Your task to perform on an android device: Search for Mexican restaurants on Maps Image 0: 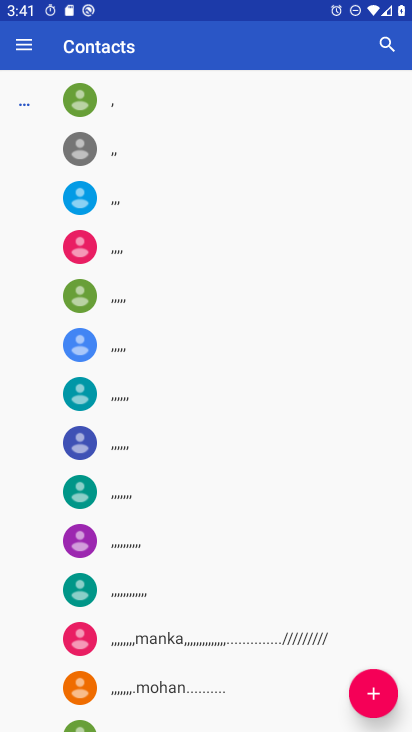
Step 0: press home button
Your task to perform on an android device: Search for Mexican restaurants on Maps Image 1: 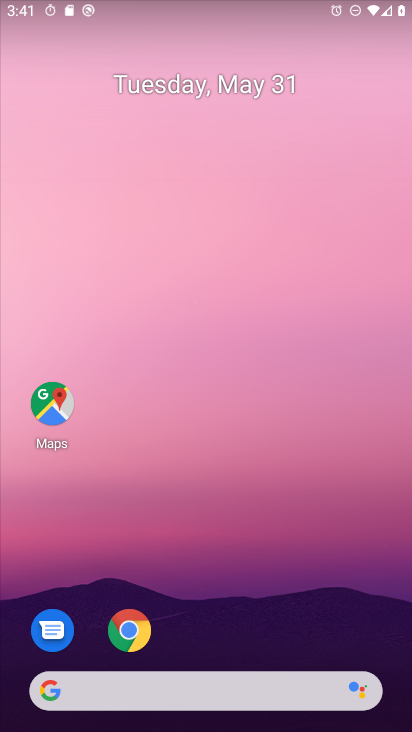
Step 1: drag from (192, 696) to (223, 88)
Your task to perform on an android device: Search for Mexican restaurants on Maps Image 2: 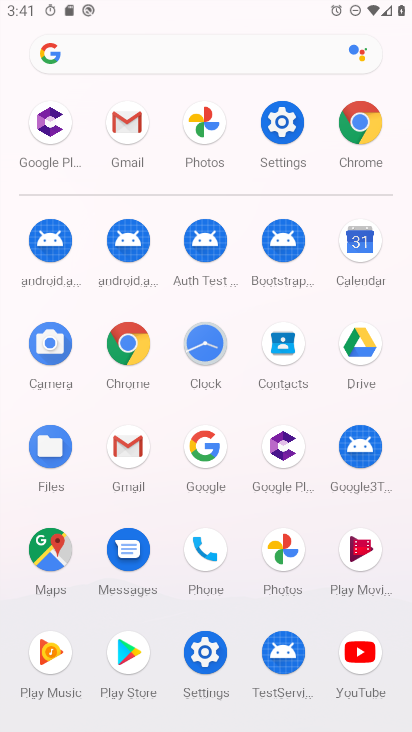
Step 2: click (38, 555)
Your task to perform on an android device: Search for Mexican restaurants on Maps Image 3: 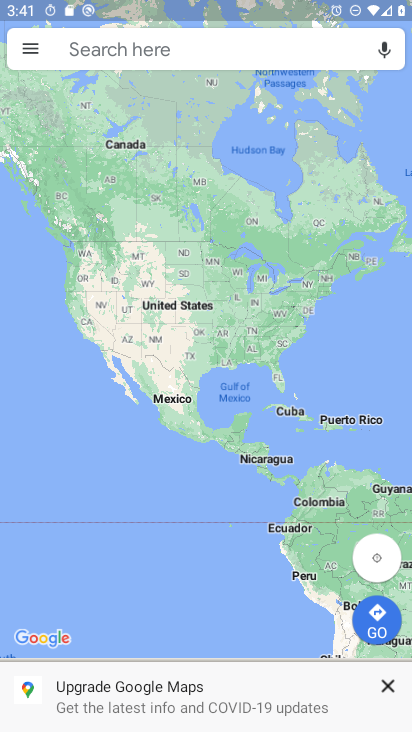
Step 3: click (236, 61)
Your task to perform on an android device: Search for Mexican restaurants on Maps Image 4: 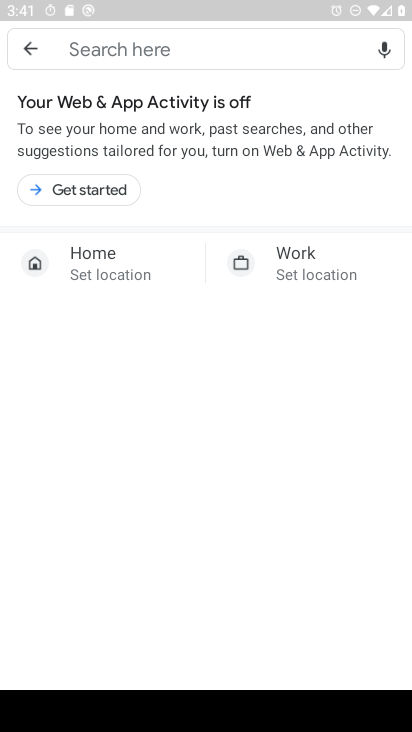
Step 4: type "mexican restaurant"
Your task to perform on an android device: Search for Mexican restaurants on Maps Image 5: 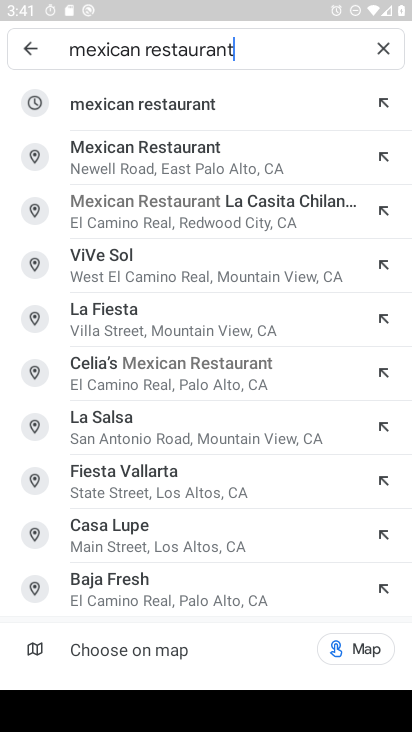
Step 5: click (191, 111)
Your task to perform on an android device: Search for Mexican restaurants on Maps Image 6: 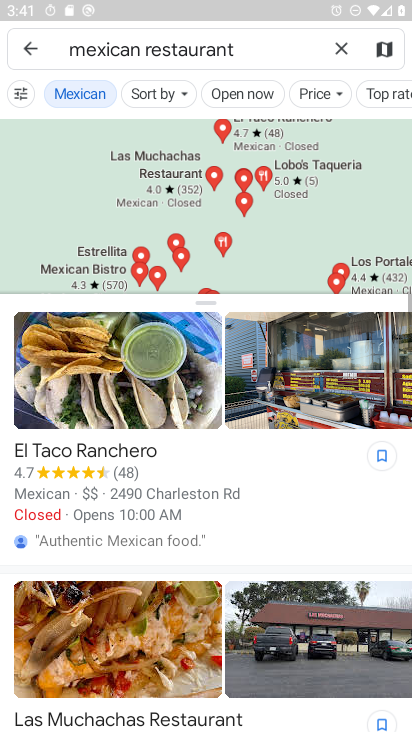
Step 6: task complete